Your task to perform on an android device: toggle improve location accuracy Image 0: 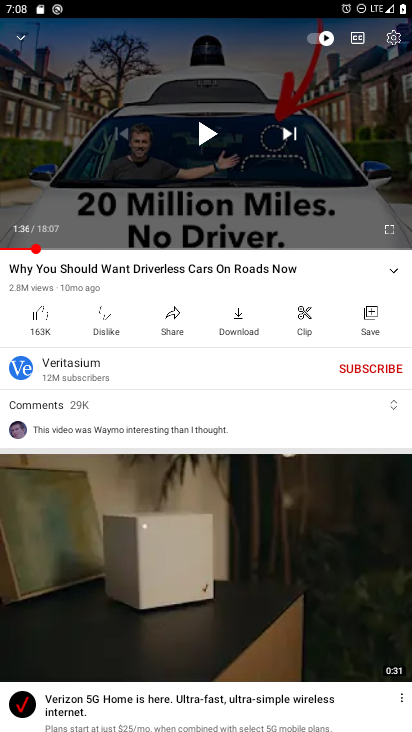
Step 0: press home button
Your task to perform on an android device: toggle improve location accuracy Image 1: 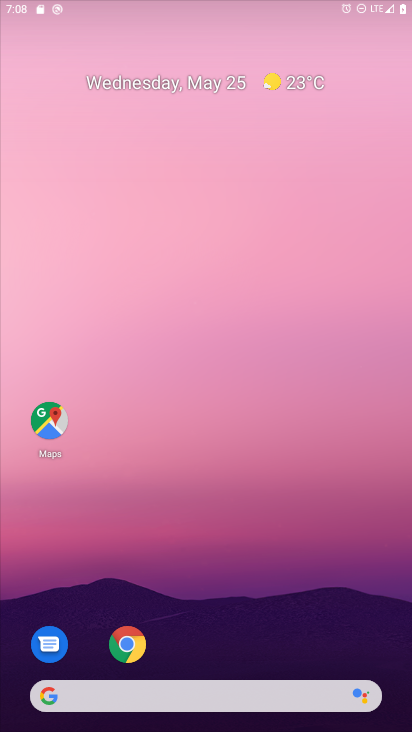
Step 1: drag from (382, 668) to (349, 59)
Your task to perform on an android device: toggle improve location accuracy Image 2: 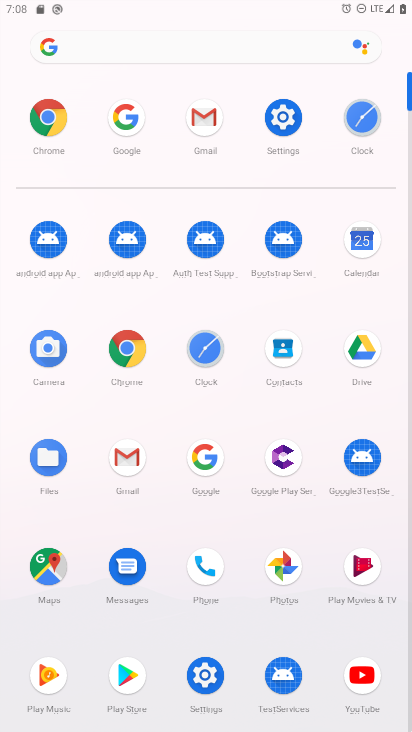
Step 2: click (300, 114)
Your task to perform on an android device: toggle improve location accuracy Image 3: 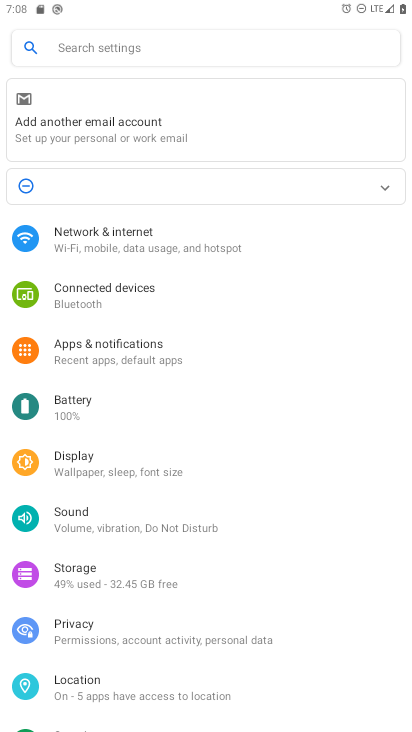
Step 3: click (102, 700)
Your task to perform on an android device: toggle improve location accuracy Image 4: 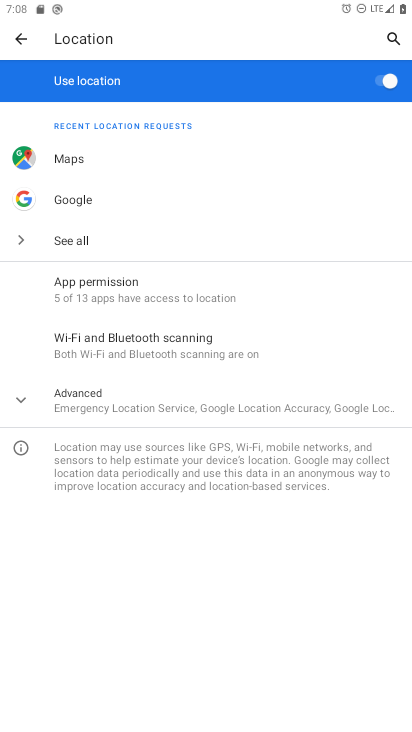
Step 4: click (144, 373)
Your task to perform on an android device: toggle improve location accuracy Image 5: 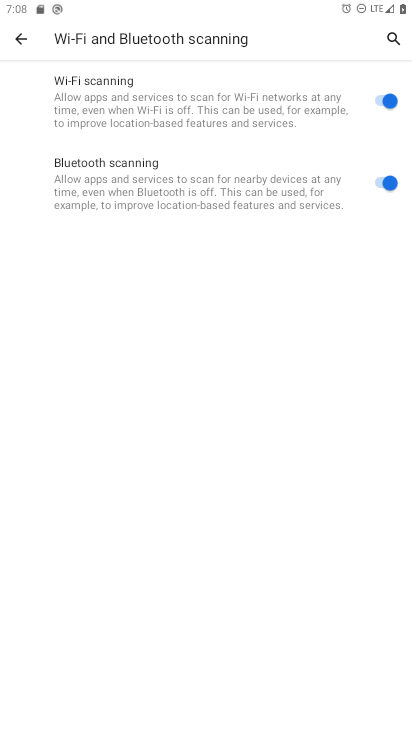
Step 5: press back button
Your task to perform on an android device: toggle improve location accuracy Image 6: 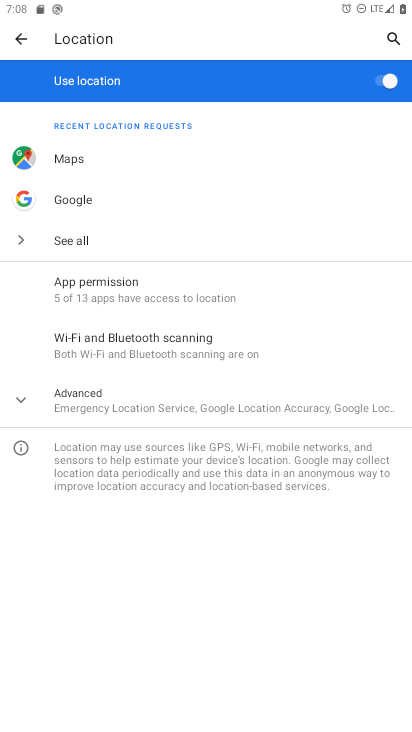
Step 6: click (133, 400)
Your task to perform on an android device: toggle improve location accuracy Image 7: 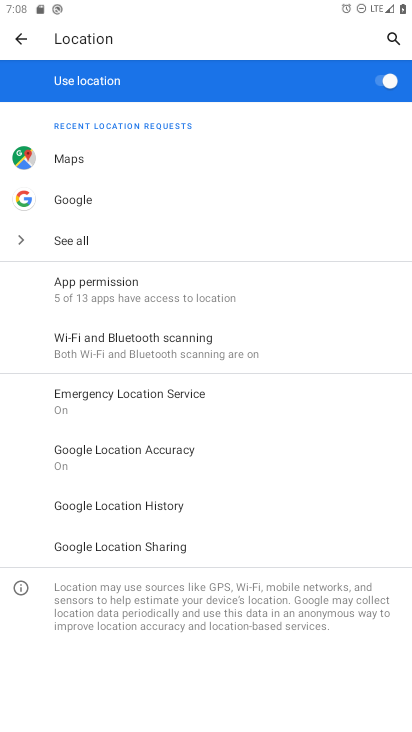
Step 7: click (155, 445)
Your task to perform on an android device: toggle improve location accuracy Image 8: 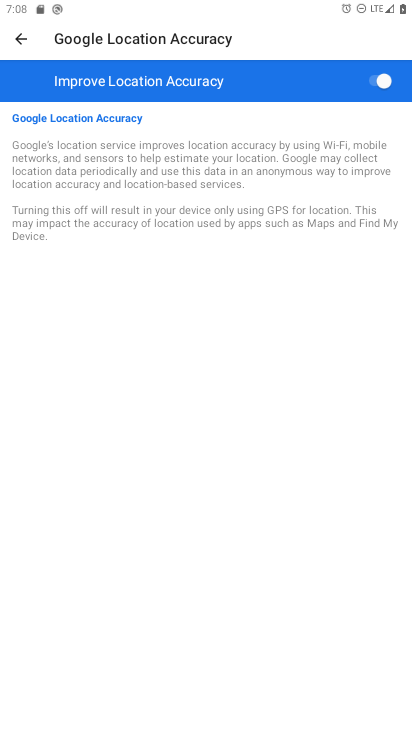
Step 8: click (357, 89)
Your task to perform on an android device: toggle improve location accuracy Image 9: 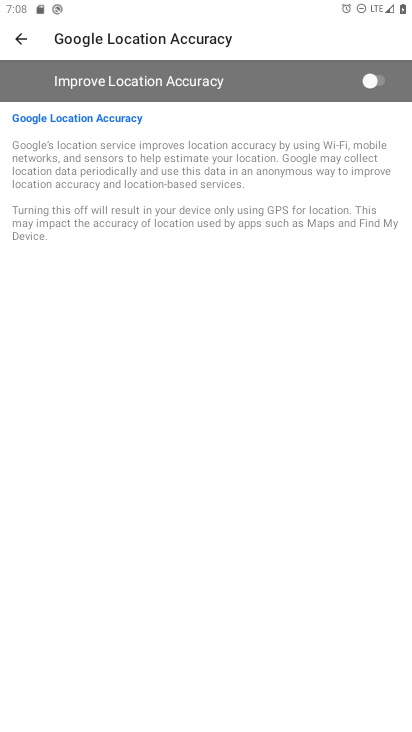
Step 9: task complete